Your task to perform on an android device: show emergency info Image 0: 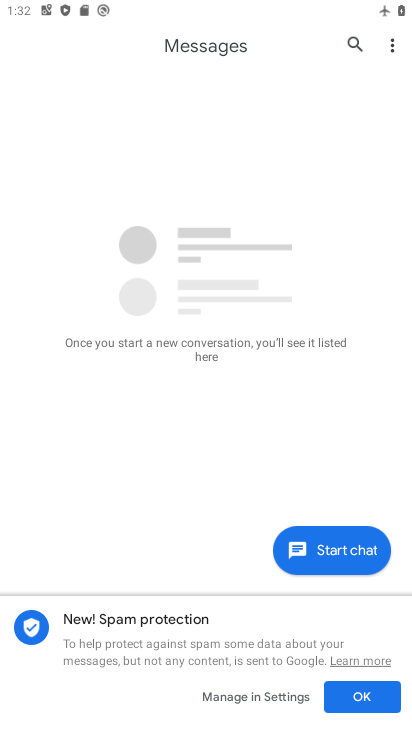
Step 0: press back button
Your task to perform on an android device: show emergency info Image 1: 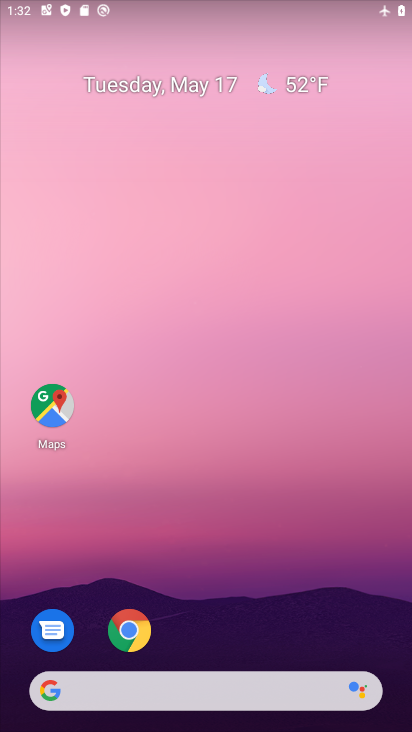
Step 1: drag from (293, 572) to (365, 100)
Your task to perform on an android device: show emergency info Image 2: 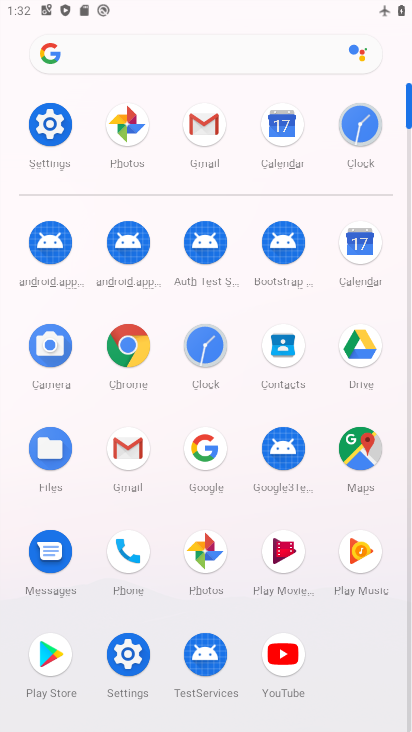
Step 2: click (52, 117)
Your task to perform on an android device: show emergency info Image 3: 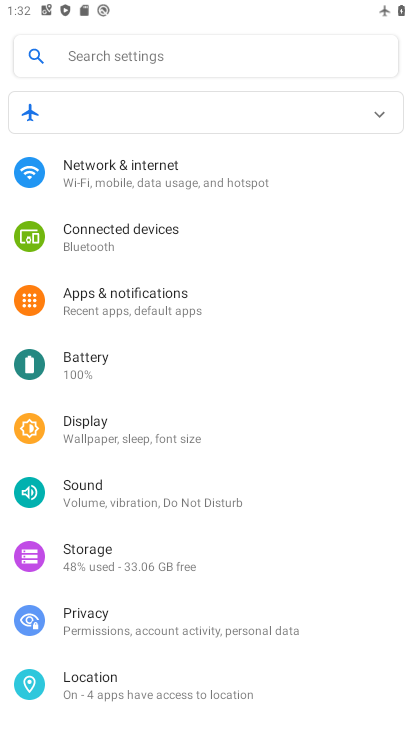
Step 3: drag from (196, 644) to (293, 100)
Your task to perform on an android device: show emergency info Image 4: 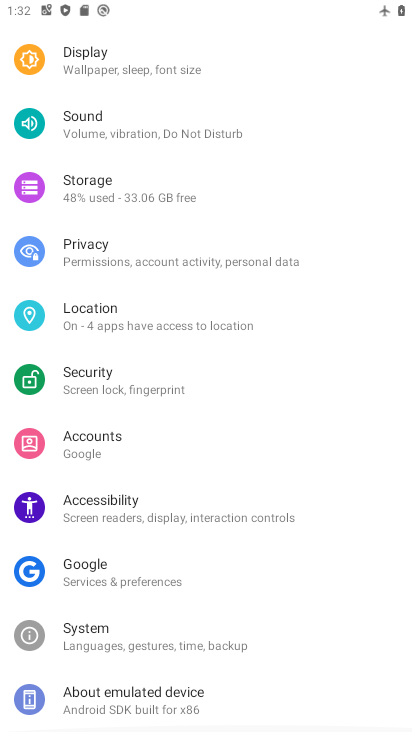
Step 4: drag from (162, 658) to (312, 40)
Your task to perform on an android device: show emergency info Image 5: 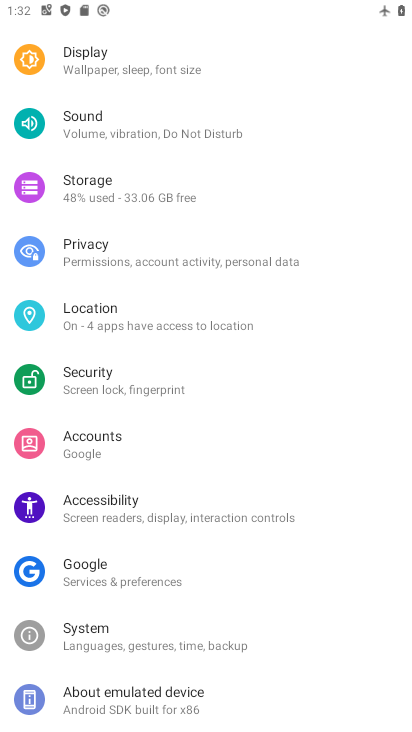
Step 5: drag from (152, 660) to (285, 51)
Your task to perform on an android device: show emergency info Image 6: 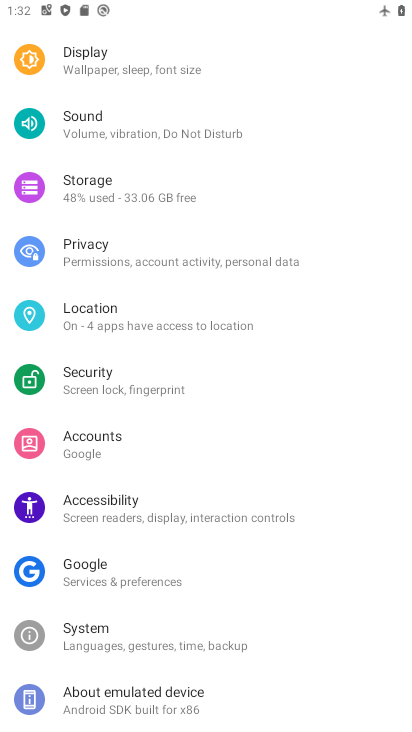
Step 6: click (137, 706)
Your task to perform on an android device: show emergency info Image 7: 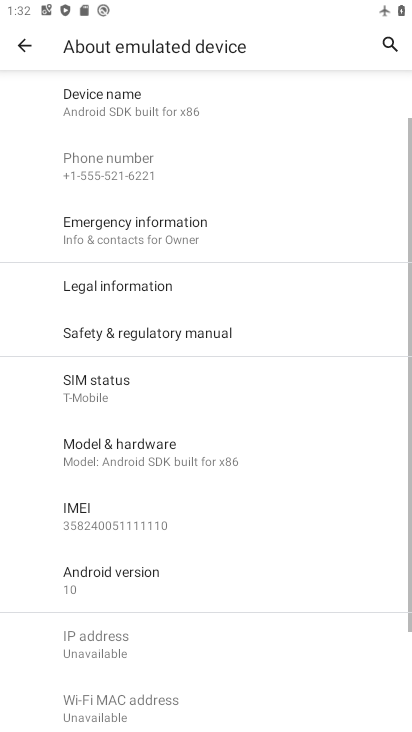
Step 7: click (162, 243)
Your task to perform on an android device: show emergency info Image 8: 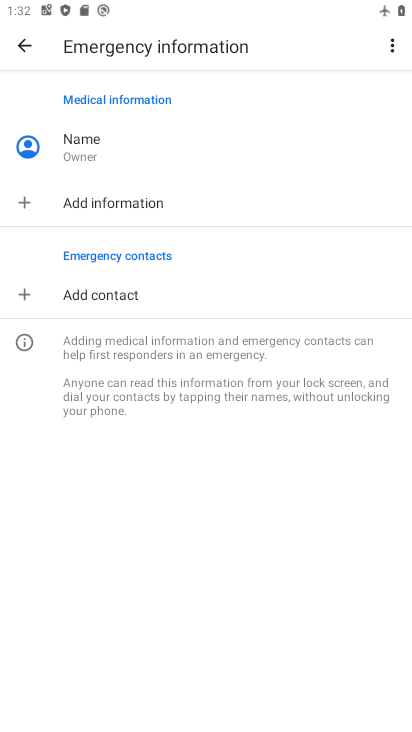
Step 8: task complete